Your task to perform on an android device: open app "Google Duo" Image 0: 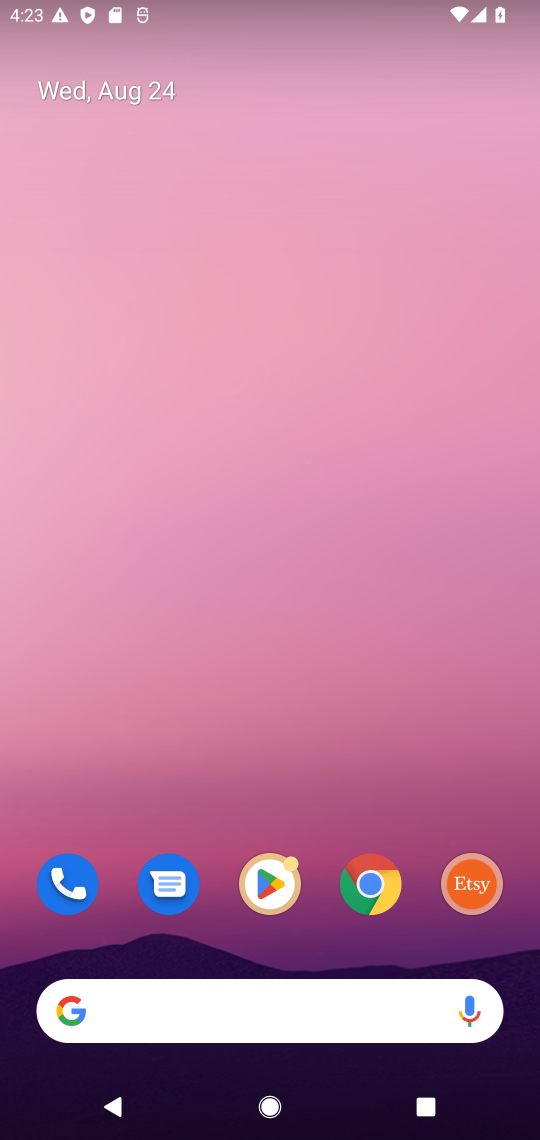
Step 0: click (267, 884)
Your task to perform on an android device: open app "Google Duo" Image 1: 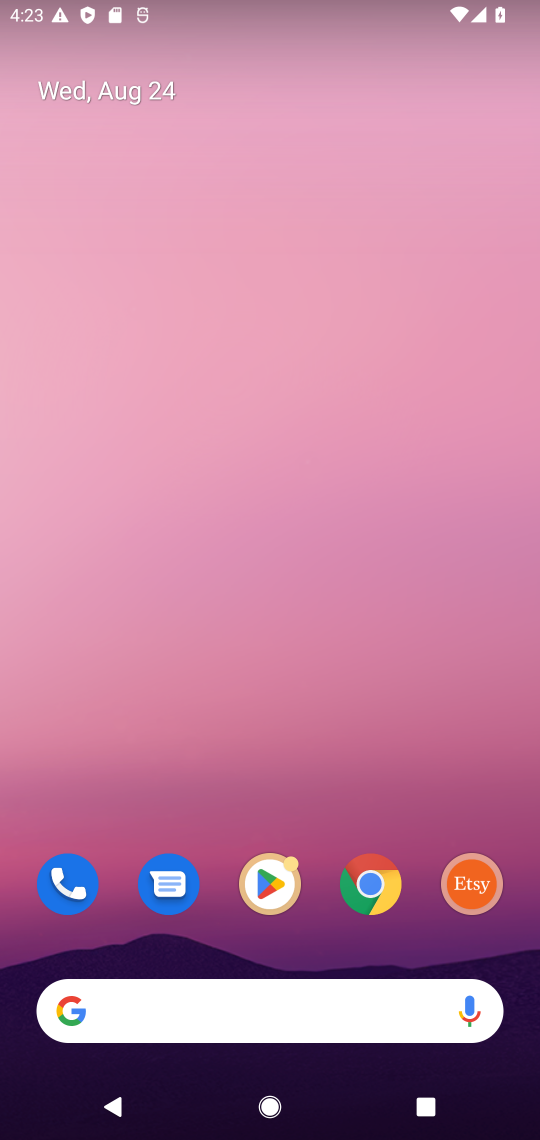
Step 1: click (261, 901)
Your task to perform on an android device: open app "Google Duo" Image 2: 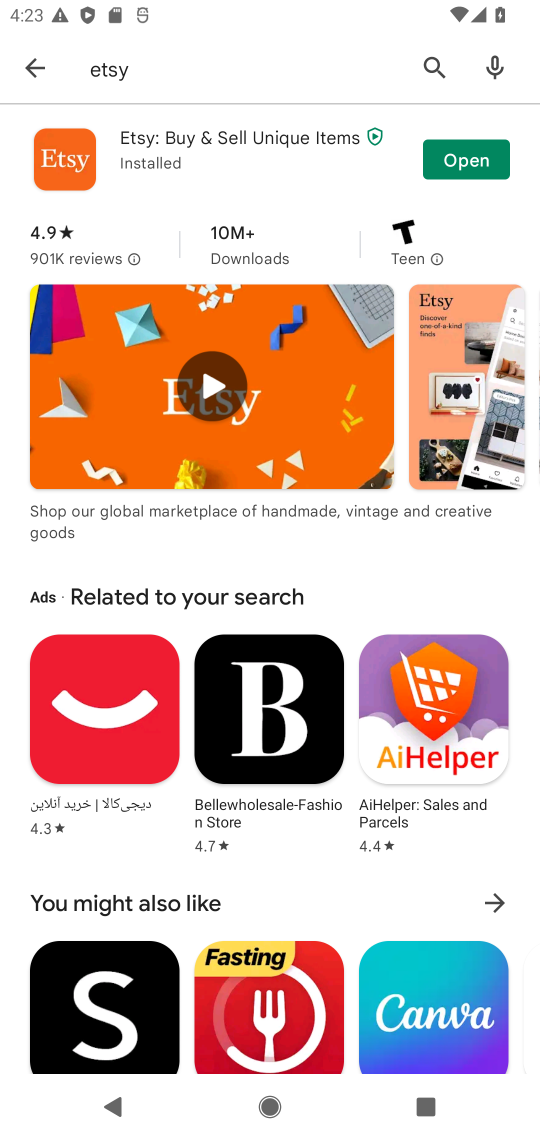
Step 2: click (30, 80)
Your task to perform on an android device: open app "Google Duo" Image 3: 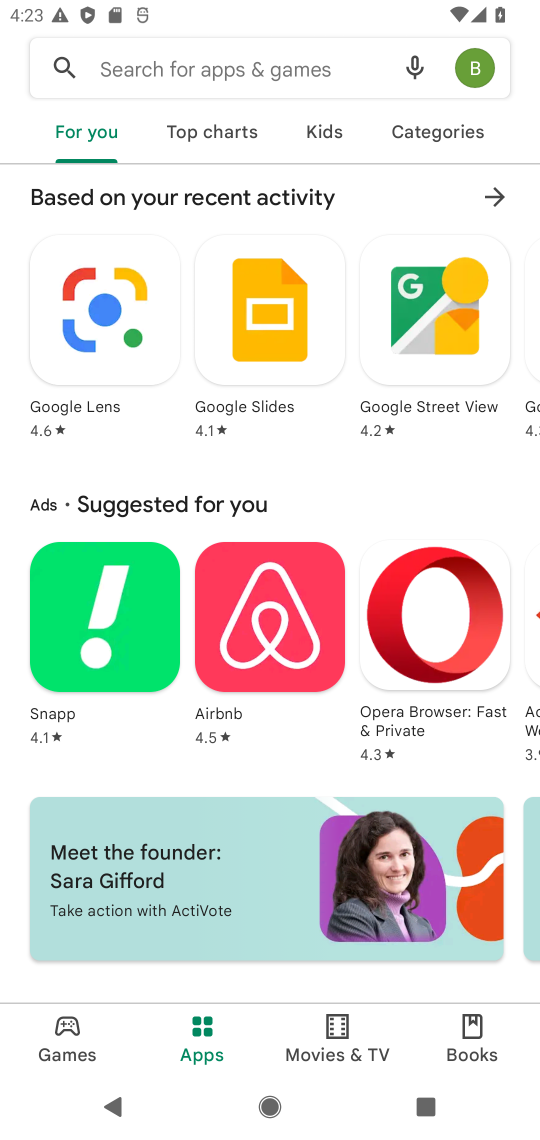
Step 3: click (248, 73)
Your task to perform on an android device: open app "Google Duo" Image 4: 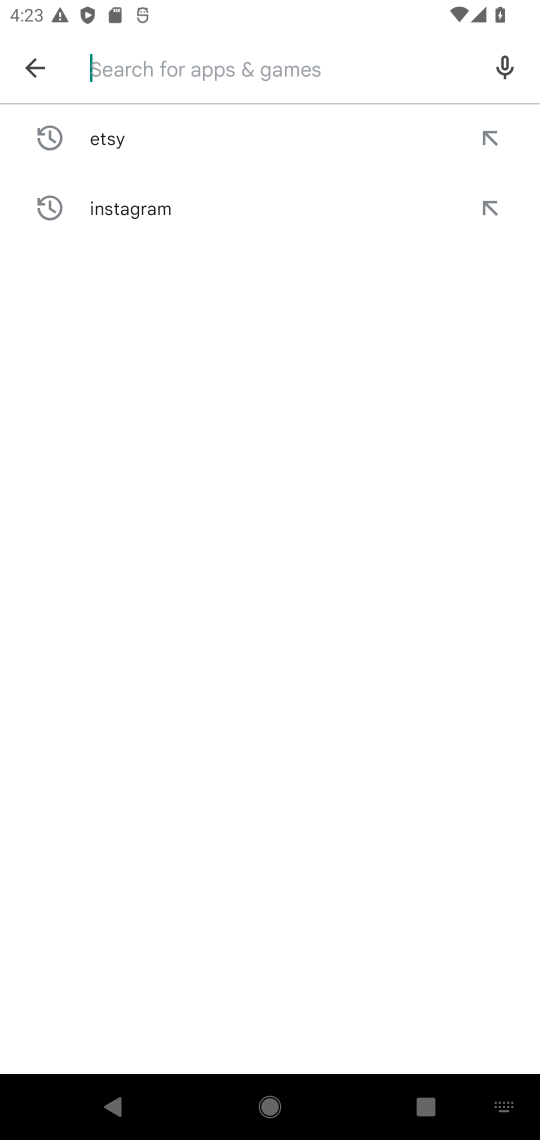
Step 4: type "Google Duo"
Your task to perform on an android device: open app "Google Duo" Image 5: 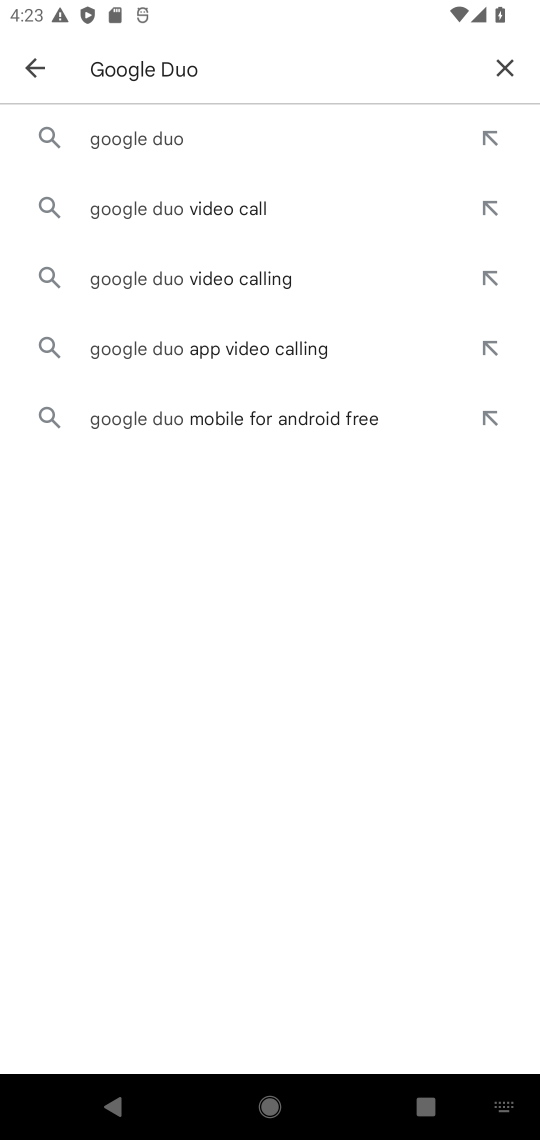
Step 5: click (164, 140)
Your task to perform on an android device: open app "Google Duo" Image 6: 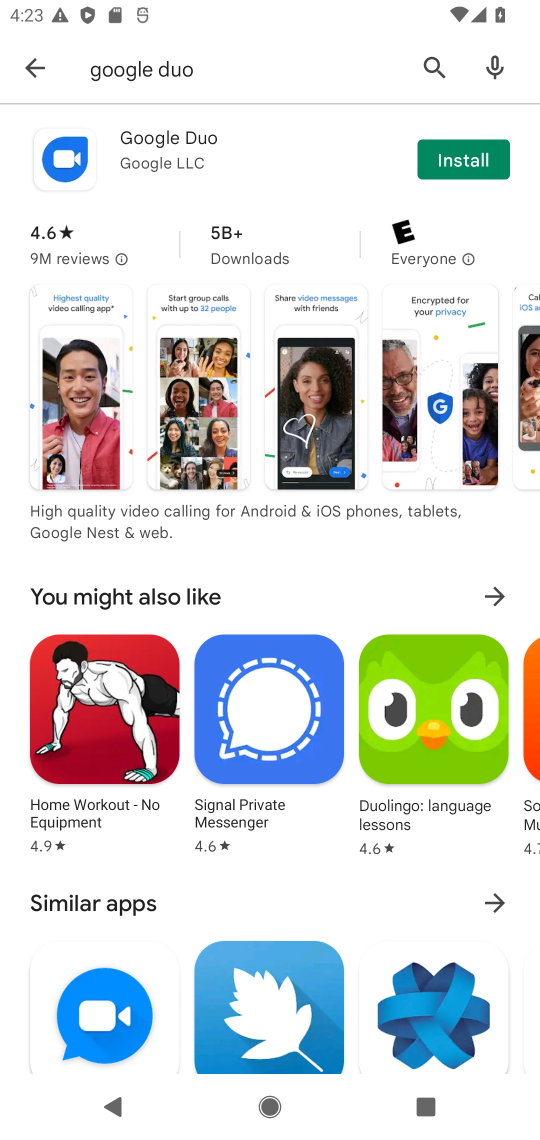
Step 6: click (483, 155)
Your task to perform on an android device: open app "Google Duo" Image 7: 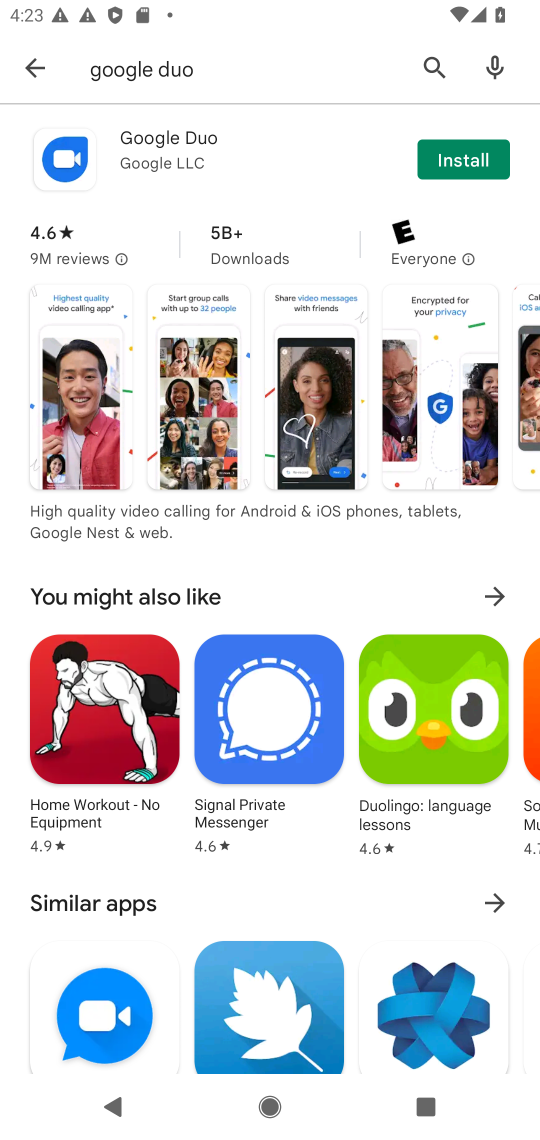
Step 7: task complete